Your task to perform on an android device: delete location history Image 0: 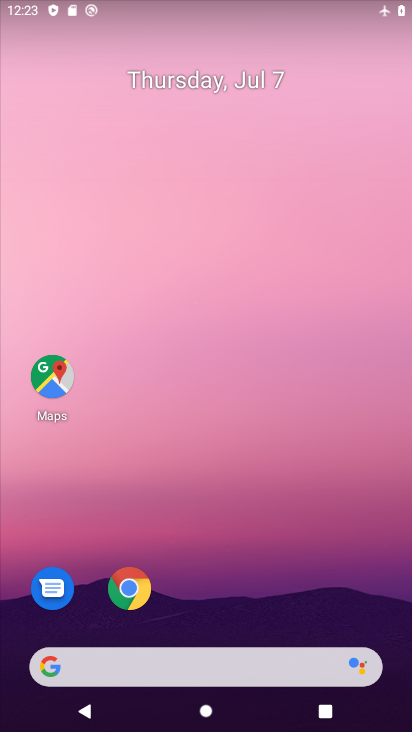
Step 0: drag from (267, 276) to (292, 57)
Your task to perform on an android device: delete location history Image 1: 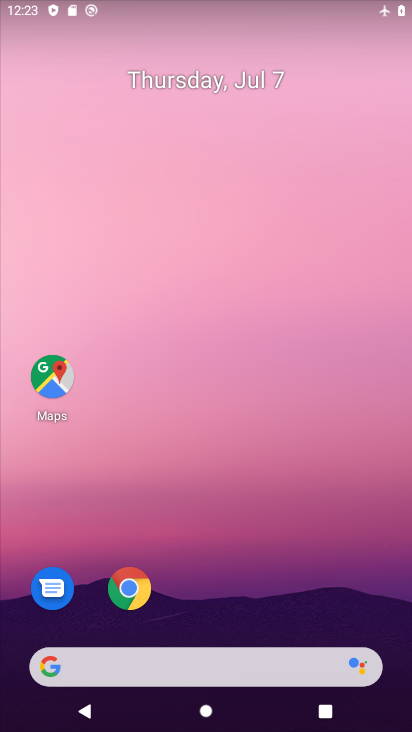
Step 1: drag from (173, 599) to (188, 159)
Your task to perform on an android device: delete location history Image 2: 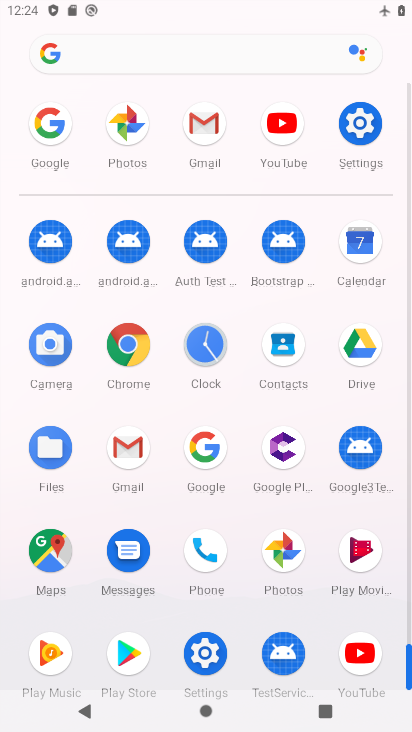
Step 2: click (208, 651)
Your task to perform on an android device: delete location history Image 3: 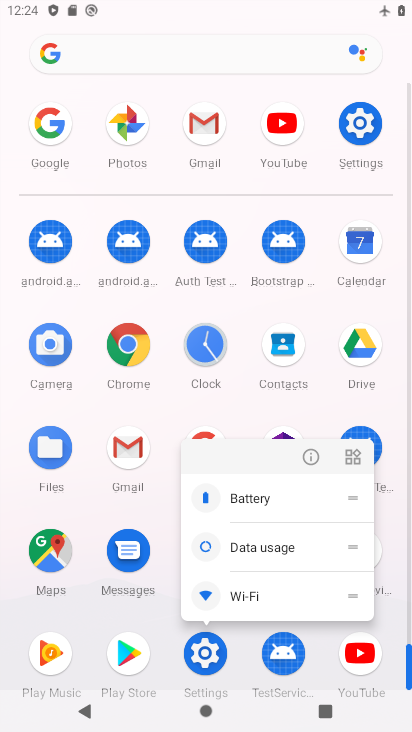
Step 3: click (313, 464)
Your task to perform on an android device: delete location history Image 4: 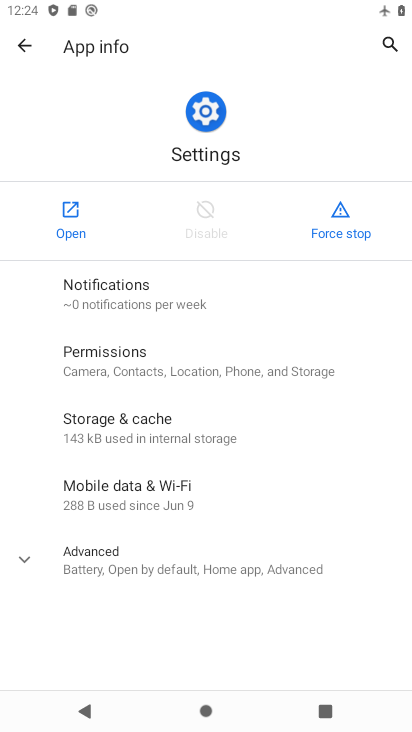
Step 4: click (70, 200)
Your task to perform on an android device: delete location history Image 5: 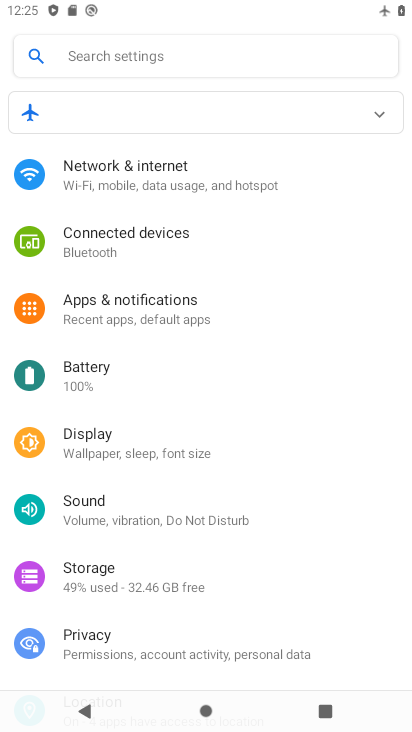
Step 5: drag from (176, 561) to (158, 119)
Your task to perform on an android device: delete location history Image 6: 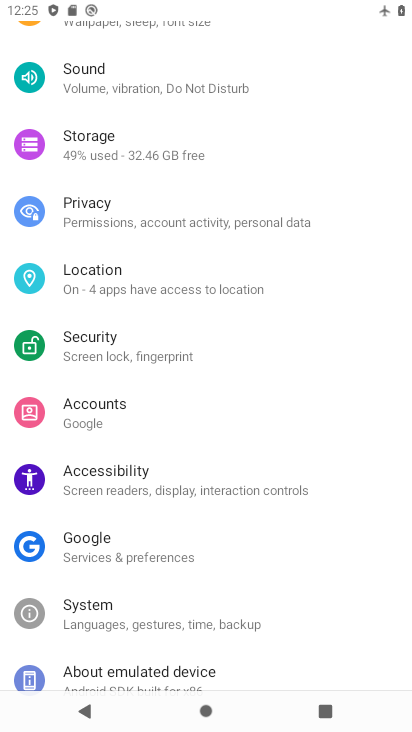
Step 6: click (112, 266)
Your task to perform on an android device: delete location history Image 7: 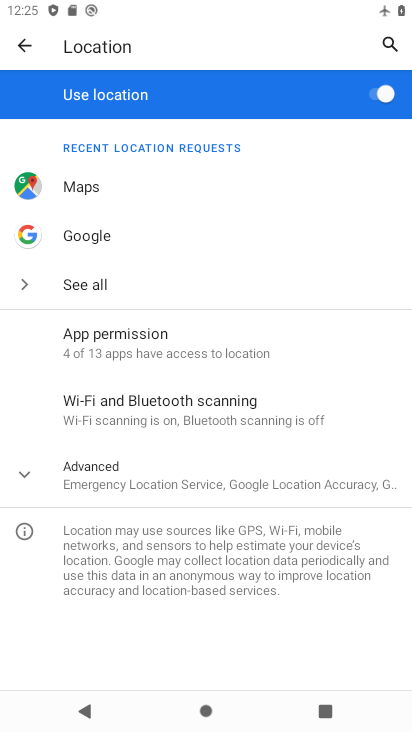
Step 7: drag from (190, 439) to (158, 227)
Your task to perform on an android device: delete location history Image 8: 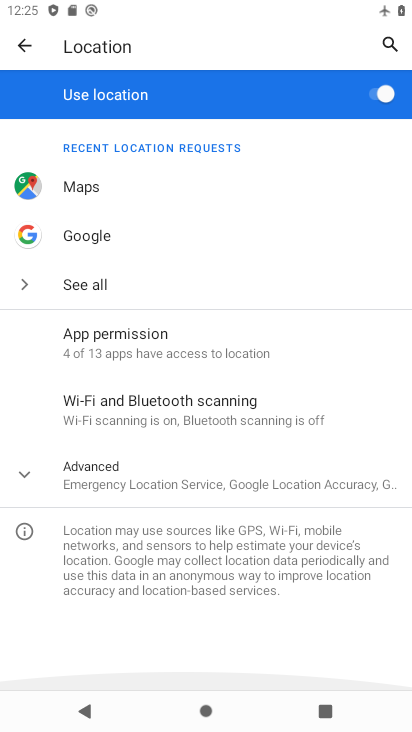
Step 8: drag from (153, 214) to (197, 509)
Your task to perform on an android device: delete location history Image 9: 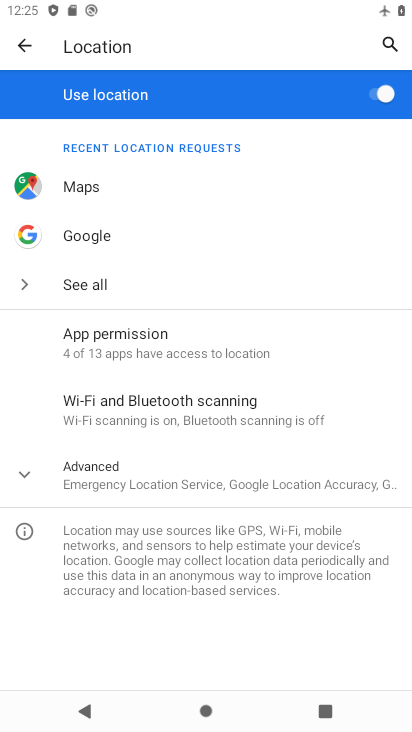
Step 9: click (107, 473)
Your task to perform on an android device: delete location history Image 10: 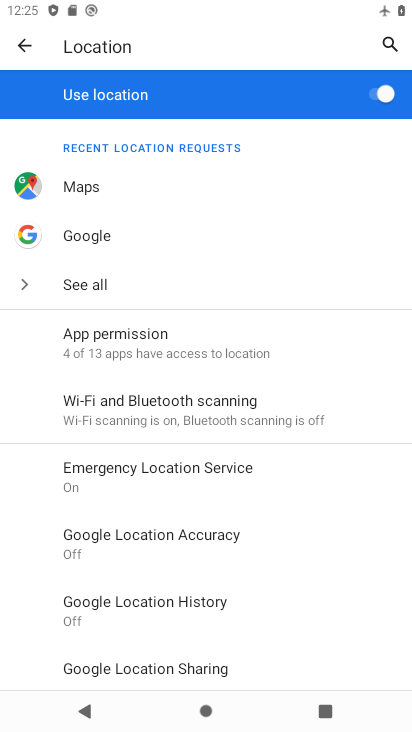
Step 10: drag from (202, 631) to (273, 320)
Your task to perform on an android device: delete location history Image 11: 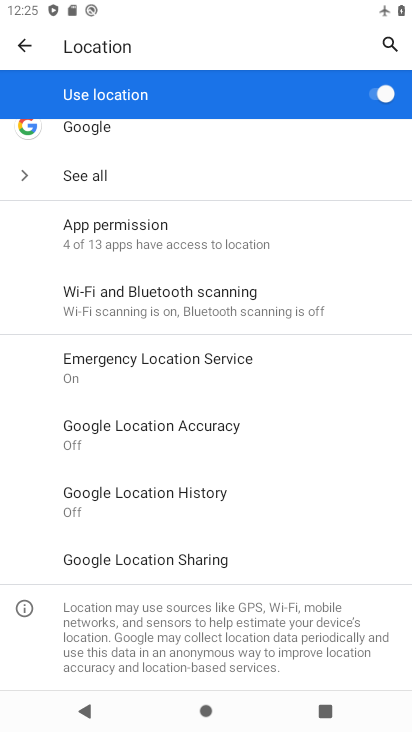
Step 11: click (153, 491)
Your task to perform on an android device: delete location history Image 12: 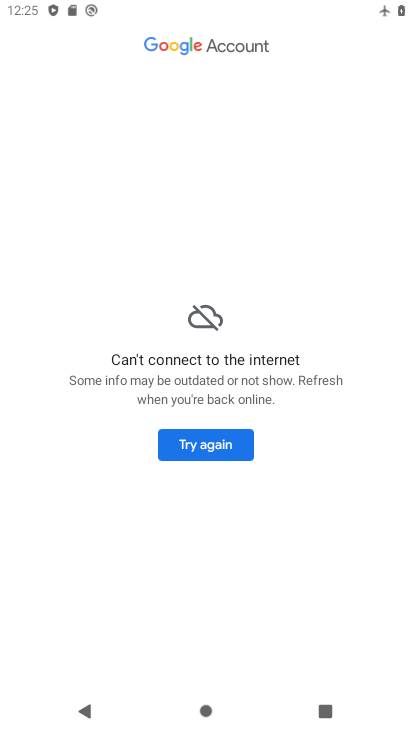
Step 12: click (226, 417)
Your task to perform on an android device: delete location history Image 13: 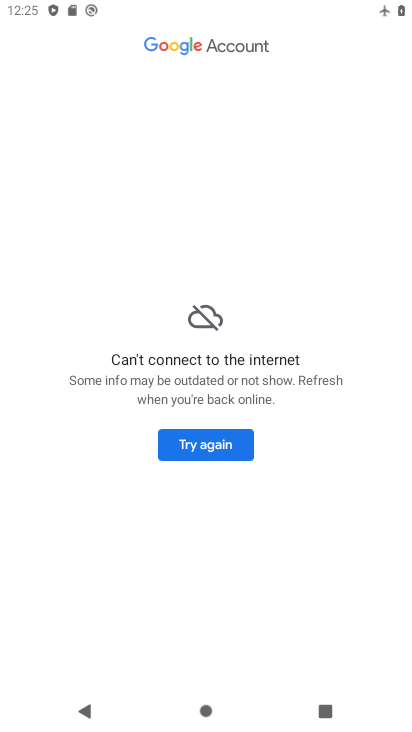
Step 13: click (192, 436)
Your task to perform on an android device: delete location history Image 14: 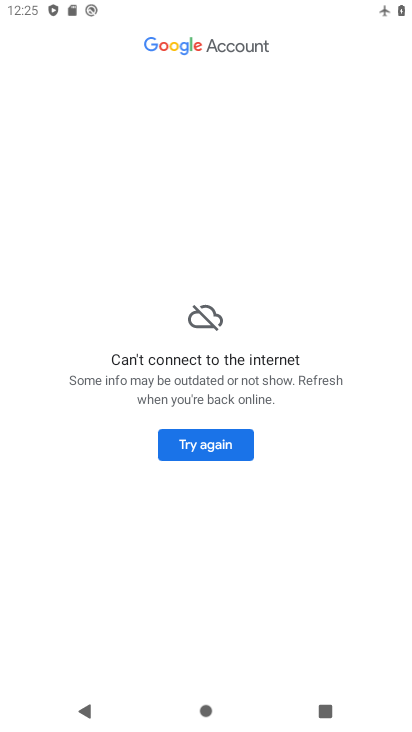
Step 14: click (192, 436)
Your task to perform on an android device: delete location history Image 15: 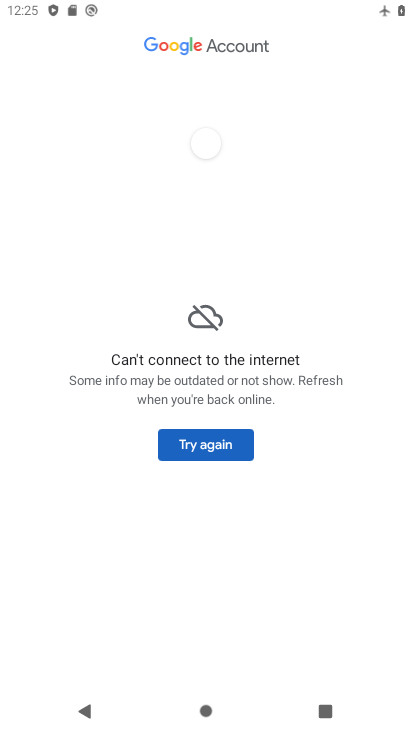
Step 15: click (192, 436)
Your task to perform on an android device: delete location history Image 16: 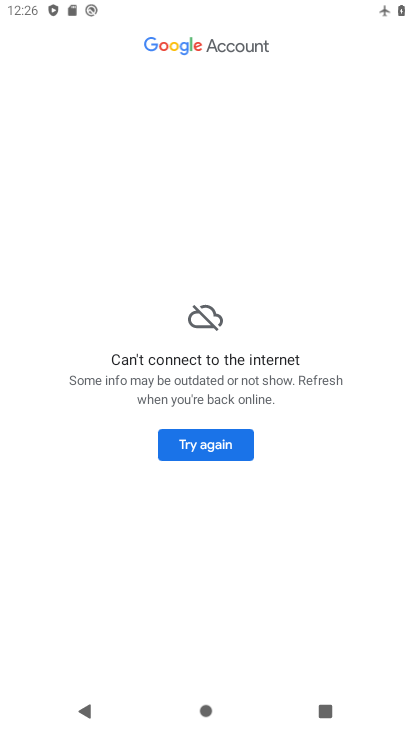
Step 16: task complete